Your task to perform on an android device: Show me popular games on the Play Store Image 0: 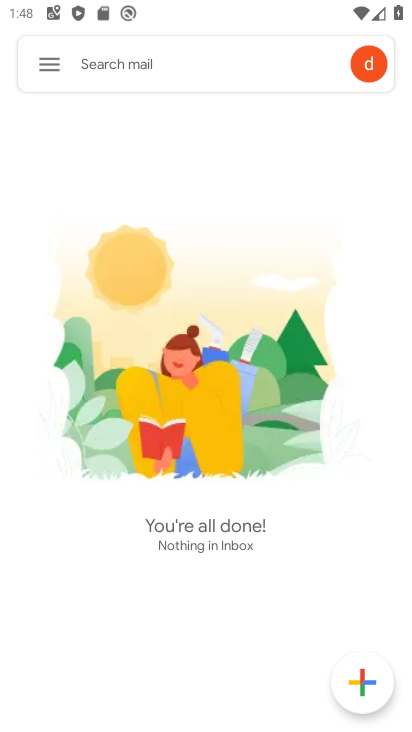
Step 0: press home button
Your task to perform on an android device: Show me popular games on the Play Store Image 1: 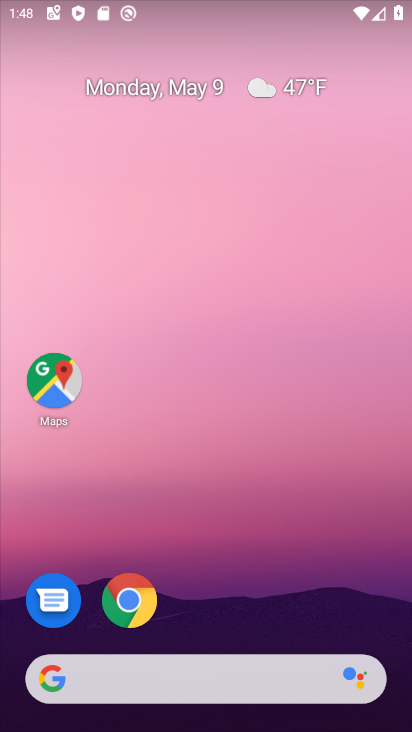
Step 1: drag from (202, 621) to (273, 51)
Your task to perform on an android device: Show me popular games on the Play Store Image 2: 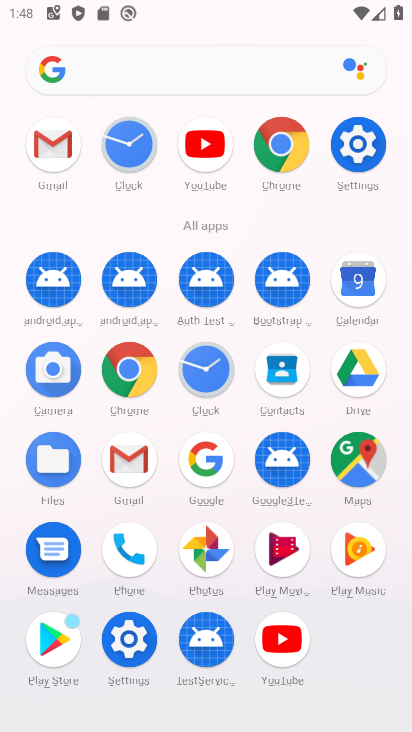
Step 2: click (53, 640)
Your task to perform on an android device: Show me popular games on the Play Store Image 3: 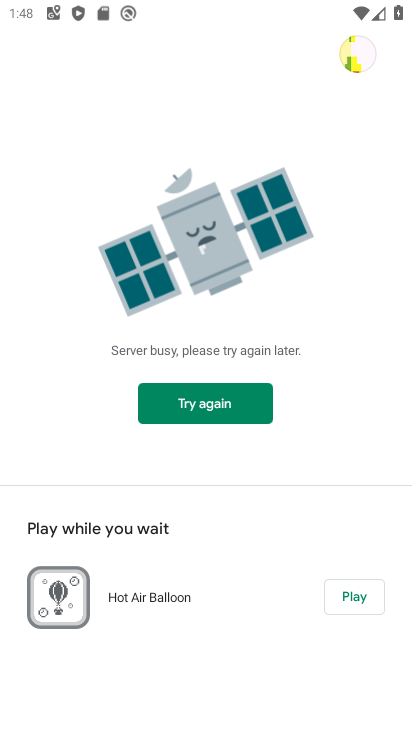
Step 3: click (217, 404)
Your task to perform on an android device: Show me popular games on the Play Store Image 4: 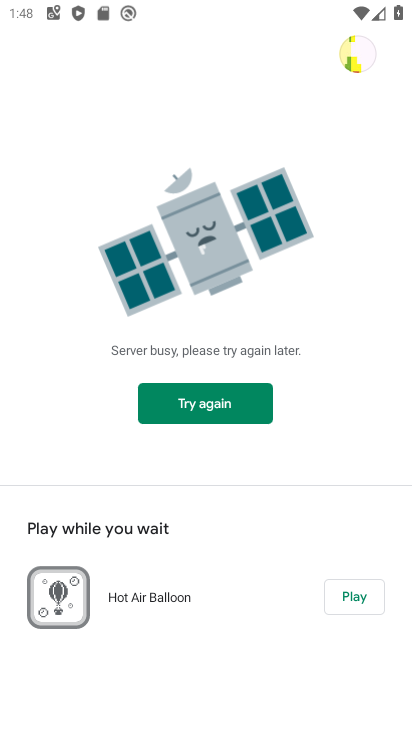
Step 4: click (217, 404)
Your task to perform on an android device: Show me popular games on the Play Store Image 5: 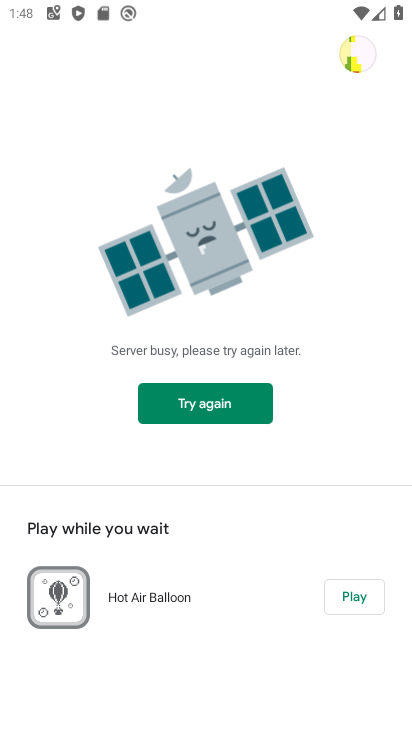
Step 5: click (217, 404)
Your task to perform on an android device: Show me popular games on the Play Store Image 6: 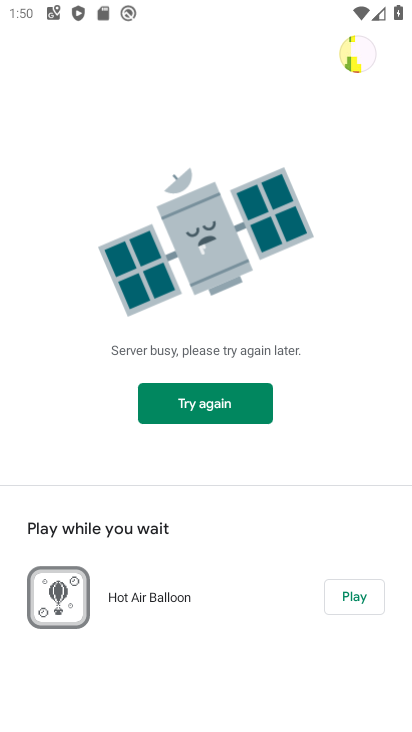
Step 6: task complete